Your task to perform on an android device: Open notification settings Image 0: 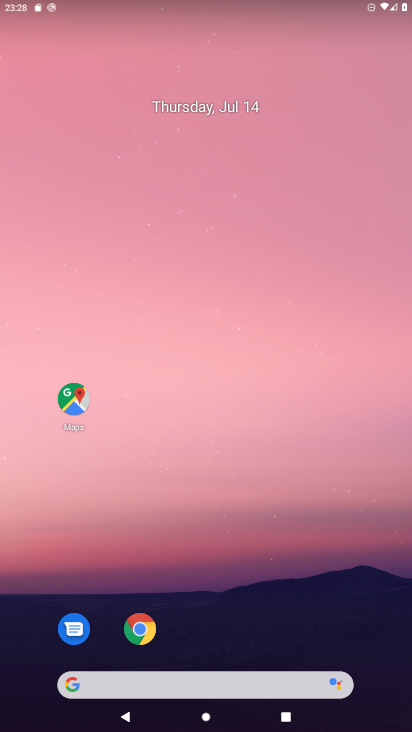
Step 0: drag from (213, 631) to (217, 99)
Your task to perform on an android device: Open notification settings Image 1: 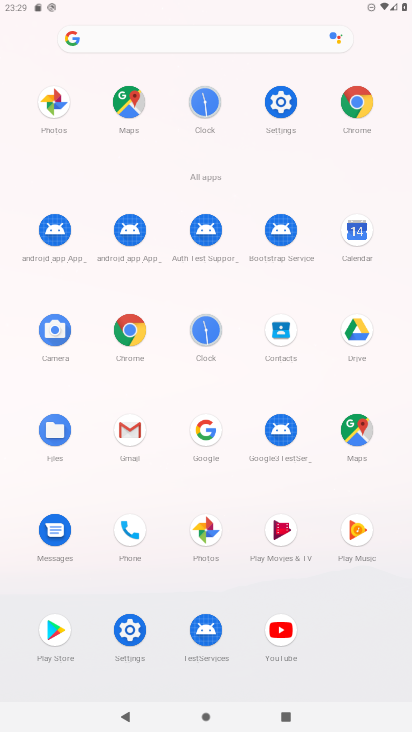
Step 1: click (135, 636)
Your task to perform on an android device: Open notification settings Image 2: 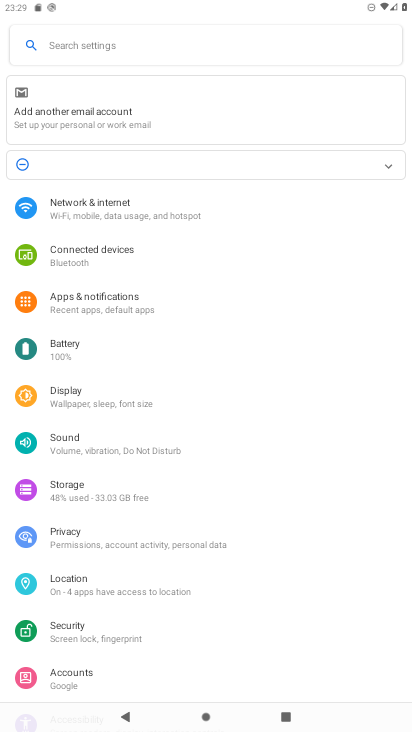
Step 2: click (136, 312)
Your task to perform on an android device: Open notification settings Image 3: 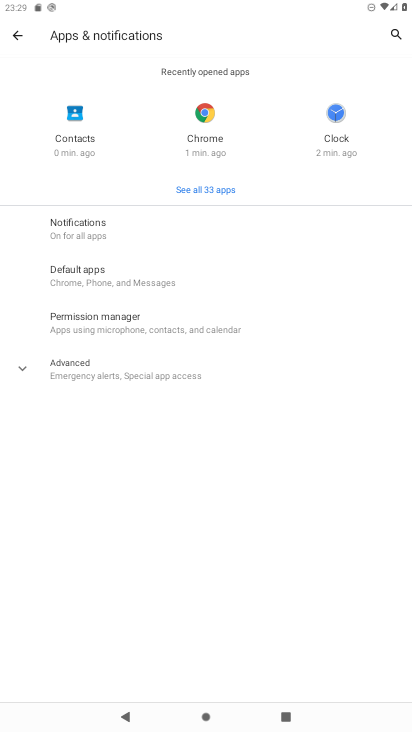
Step 3: task complete